Your task to perform on an android device: star an email in the gmail app Image 0: 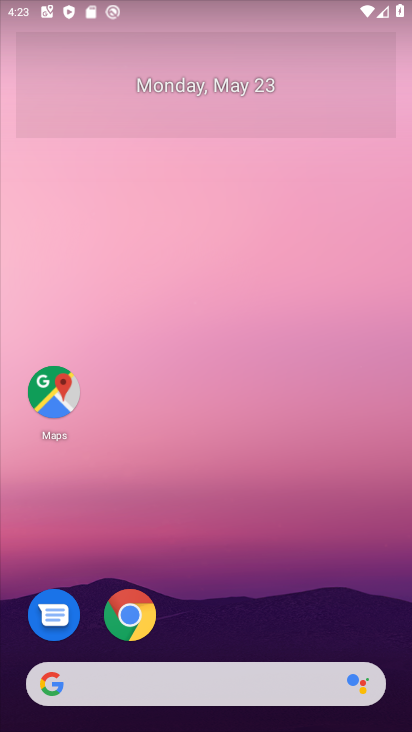
Step 0: drag from (207, 628) to (233, 52)
Your task to perform on an android device: star an email in the gmail app Image 1: 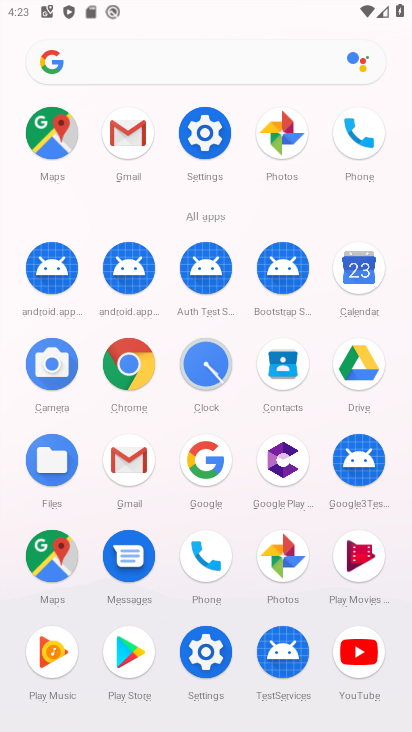
Step 1: click (145, 129)
Your task to perform on an android device: star an email in the gmail app Image 2: 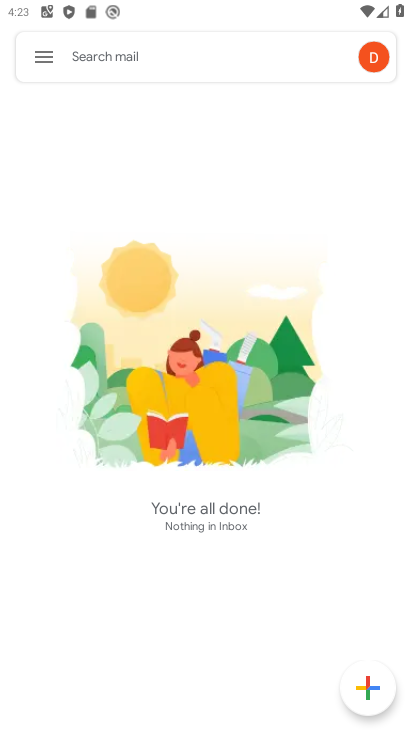
Step 2: click (144, 131)
Your task to perform on an android device: star an email in the gmail app Image 3: 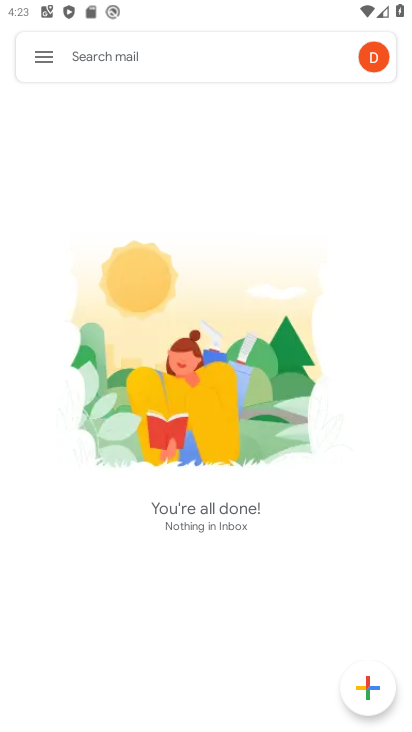
Step 3: click (45, 46)
Your task to perform on an android device: star an email in the gmail app Image 4: 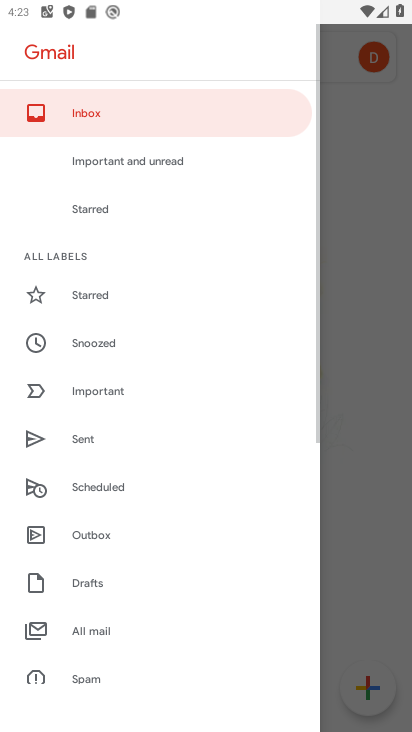
Step 4: click (102, 636)
Your task to perform on an android device: star an email in the gmail app Image 5: 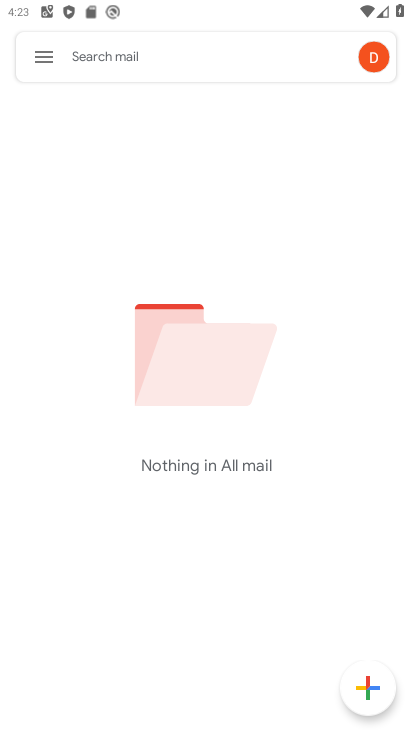
Step 5: task complete